Your task to perform on an android device: Go to ESPN.com Image 0: 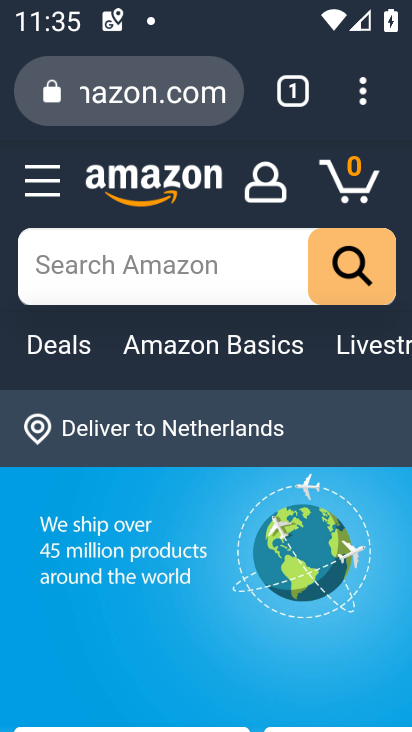
Step 0: click (302, 87)
Your task to perform on an android device: Go to ESPN.com Image 1: 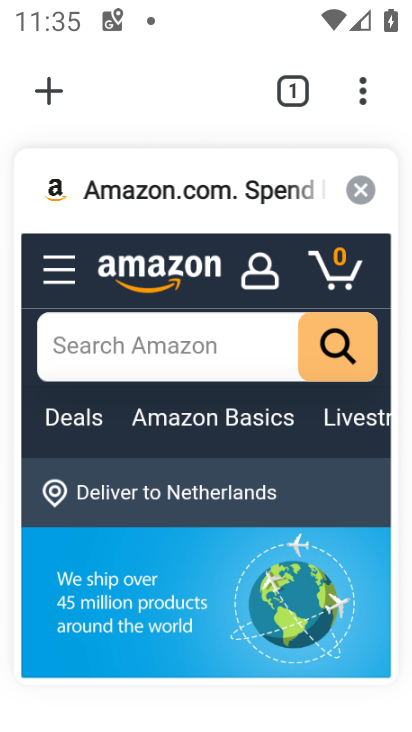
Step 1: click (59, 68)
Your task to perform on an android device: Go to ESPN.com Image 2: 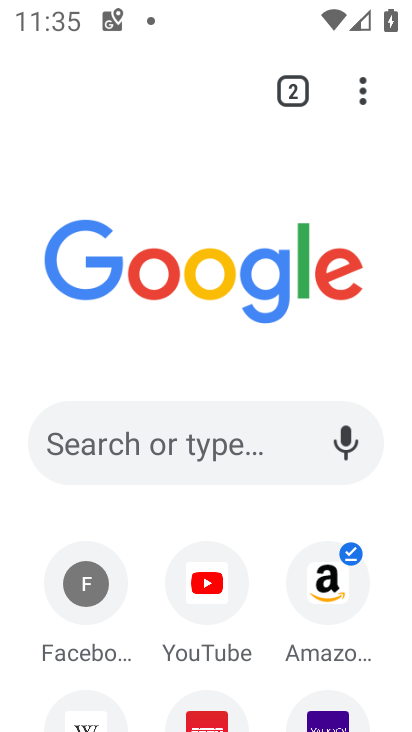
Step 2: drag from (281, 546) to (284, 256)
Your task to perform on an android device: Go to ESPN.com Image 3: 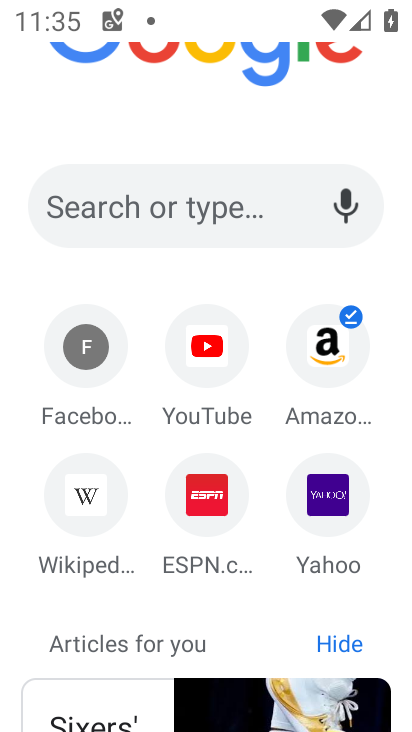
Step 3: click (212, 509)
Your task to perform on an android device: Go to ESPN.com Image 4: 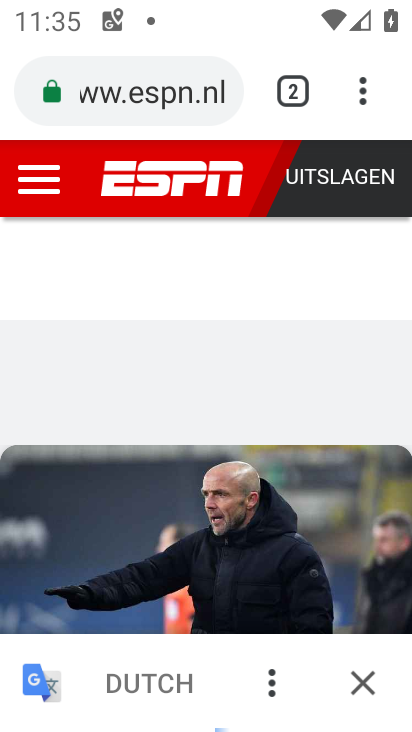
Step 4: task complete